Your task to perform on an android device: toggle notification dots Image 0: 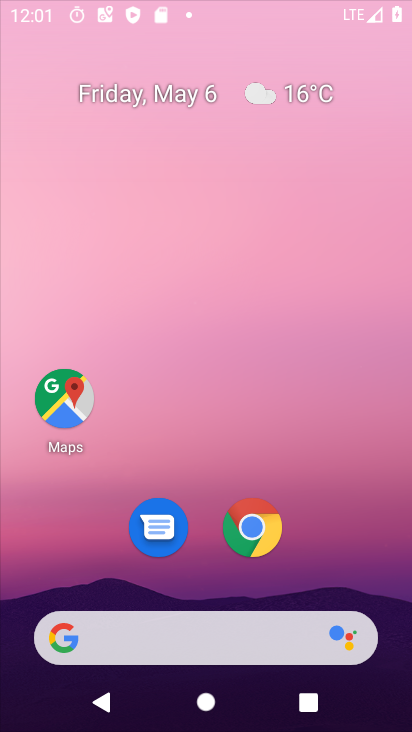
Step 0: click (368, 274)
Your task to perform on an android device: toggle notification dots Image 1: 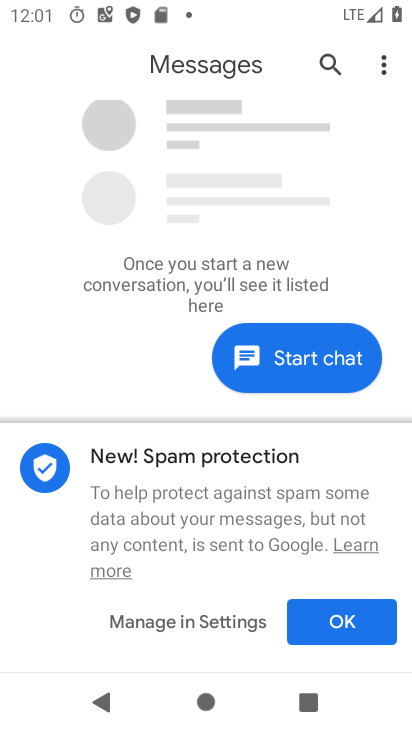
Step 1: press home button
Your task to perform on an android device: toggle notification dots Image 2: 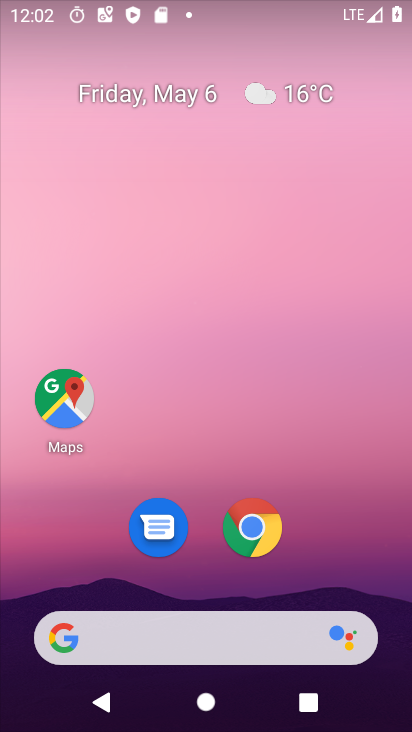
Step 2: drag from (207, 576) to (292, 92)
Your task to perform on an android device: toggle notification dots Image 3: 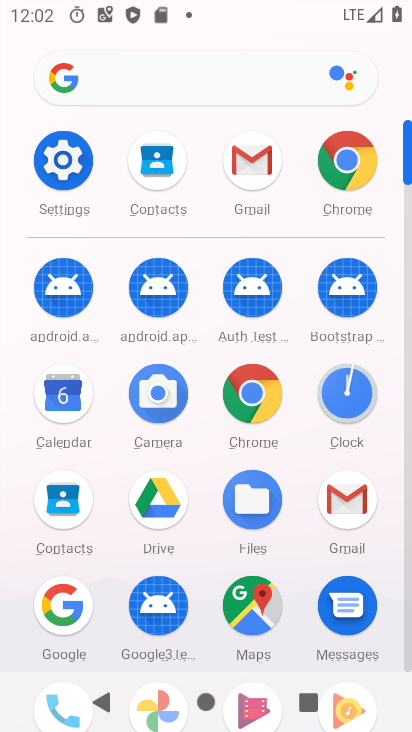
Step 3: click (296, 72)
Your task to perform on an android device: toggle notification dots Image 4: 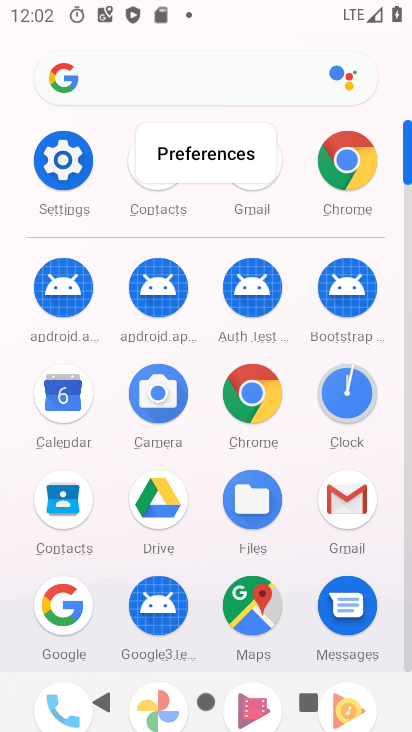
Step 4: click (56, 169)
Your task to perform on an android device: toggle notification dots Image 5: 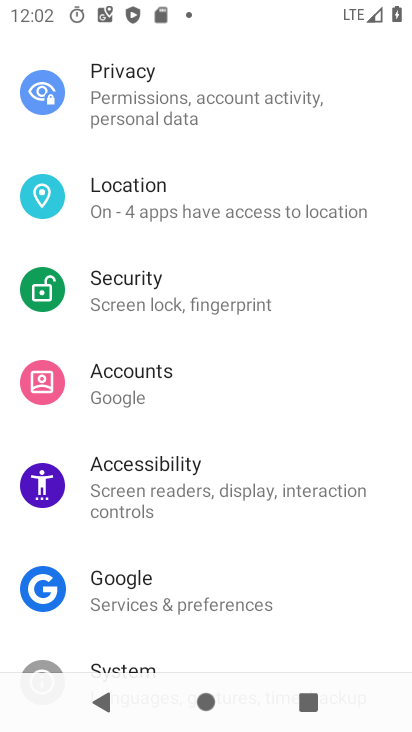
Step 5: drag from (215, 179) to (244, 626)
Your task to perform on an android device: toggle notification dots Image 6: 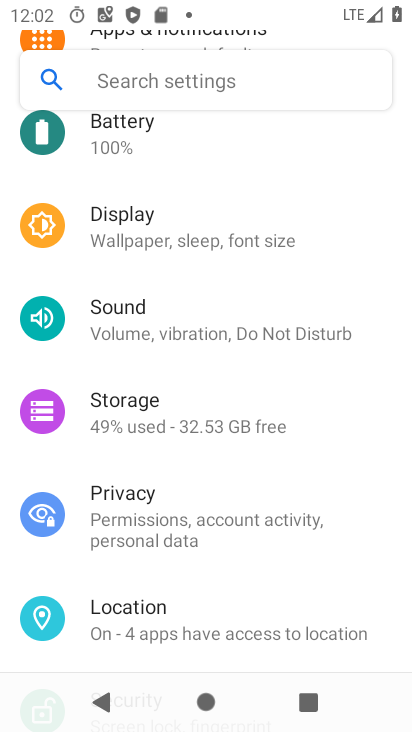
Step 6: drag from (255, 195) to (299, 731)
Your task to perform on an android device: toggle notification dots Image 7: 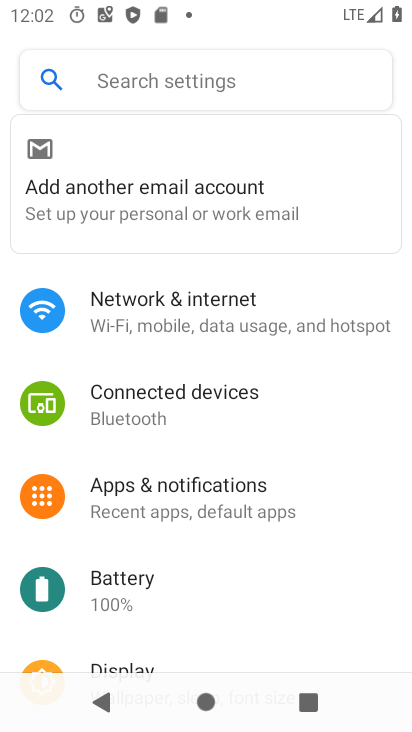
Step 7: drag from (217, 267) to (235, 477)
Your task to perform on an android device: toggle notification dots Image 8: 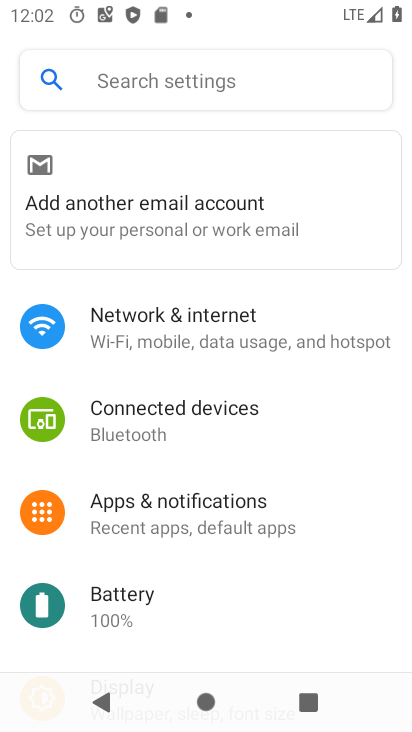
Step 8: click (192, 533)
Your task to perform on an android device: toggle notification dots Image 9: 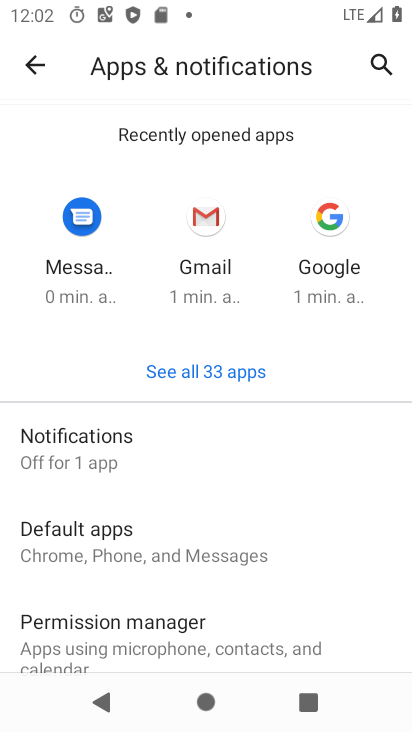
Step 9: click (82, 457)
Your task to perform on an android device: toggle notification dots Image 10: 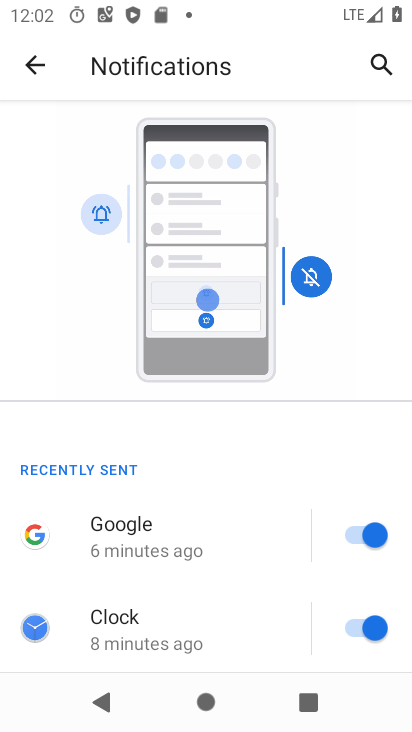
Step 10: drag from (181, 561) to (224, 297)
Your task to perform on an android device: toggle notification dots Image 11: 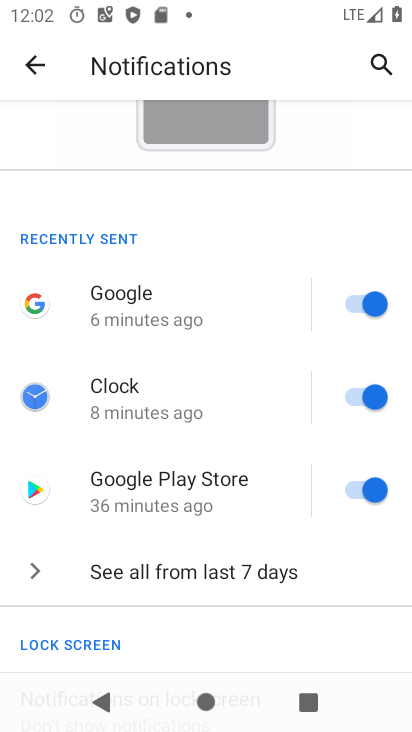
Step 11: drag from (180, 631) to (251, 248)
Your task to perform on an android device: toggle notification dots Image 12: 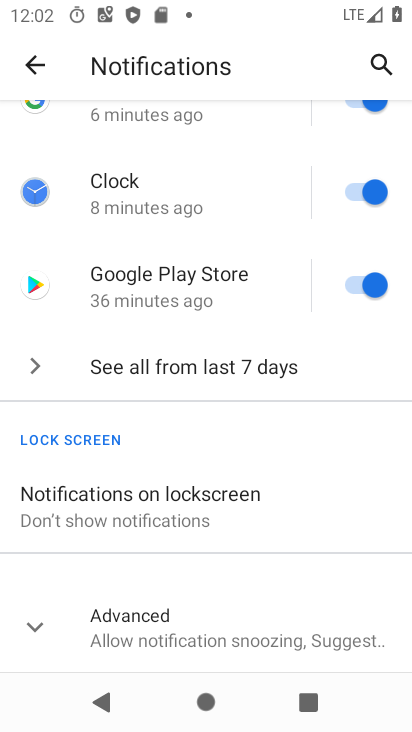
Step 12: click (138, 639)
Your task to perform on an android device: toggle notification dots Image 13: 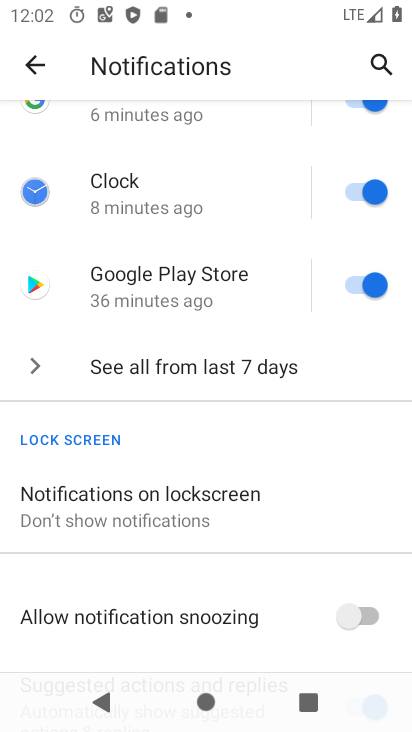
Step 13: drag from (199, 566) to (288, 235)
Your task to perform on an android device: toggle notification dots Image 14: 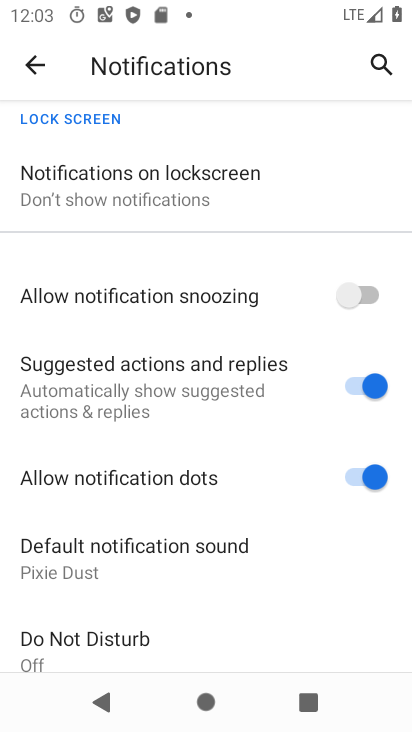
Step 14: click (340, 475)
Your task to perform on an android device: toggle notification dots Image 15: 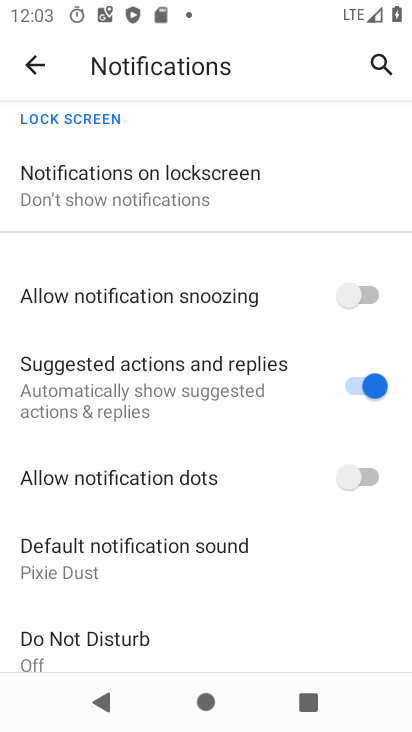
Step 15: task complete